Your task to perform on an android device: toggle airplane mode Image 0: 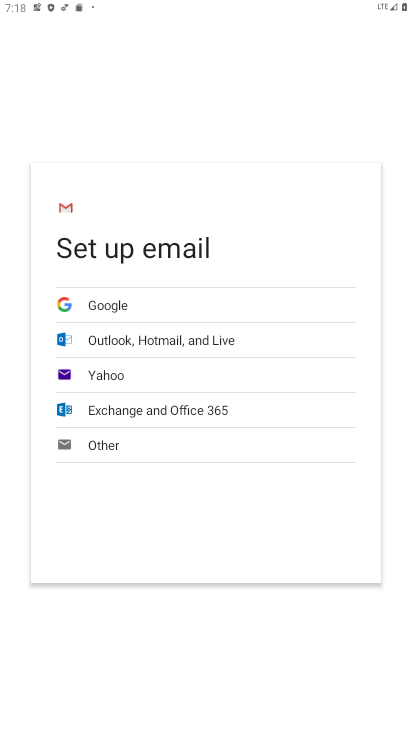
Step 0: press home button
Your task to perform on an android device: toggle airplane mode Image 1: 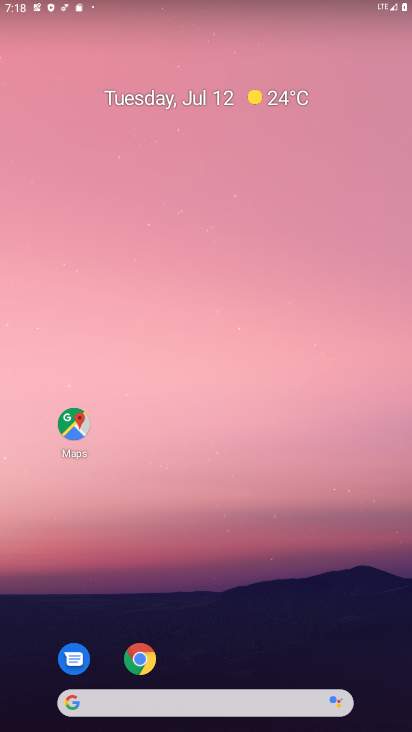
Step 1: drag from (293, 42) to (182, 623)
Your task to perform on an android device: toggle airplane mode Image 2: 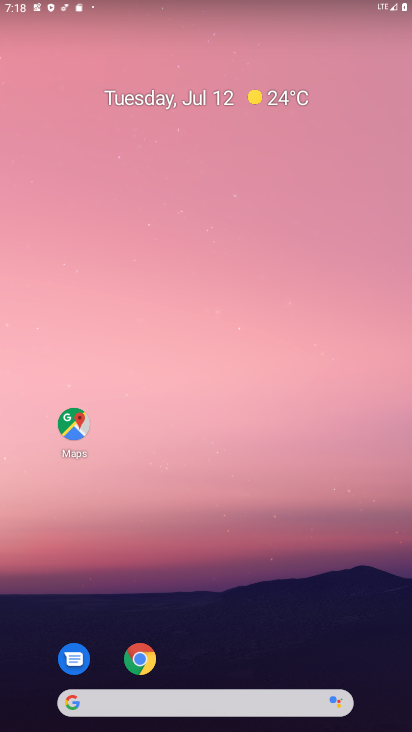
Step 2: drag from (144, 10) to (151, 551)
Your task to perform on an android device: toggle airplane mode Image 3: 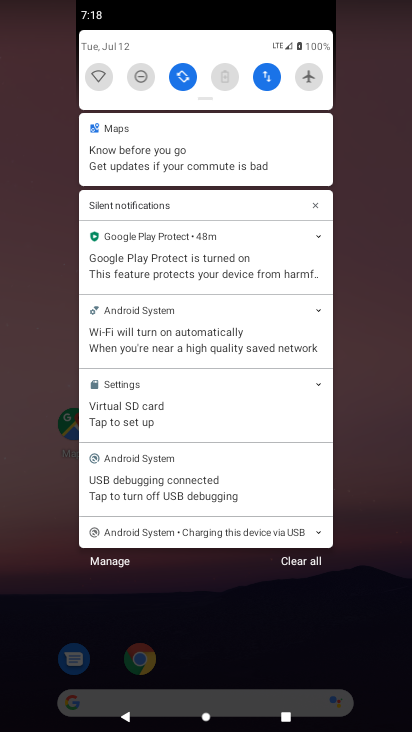
Step 3: click (304, 76)
Your task to perform on an android device: toggle airplane mode Image 4: 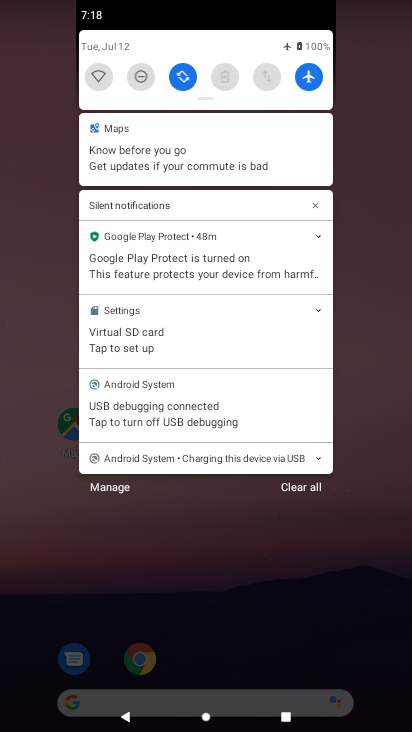
Step 4: task complete